Your task to perform on an android device: Do I have any events tomorrow? Image 0: 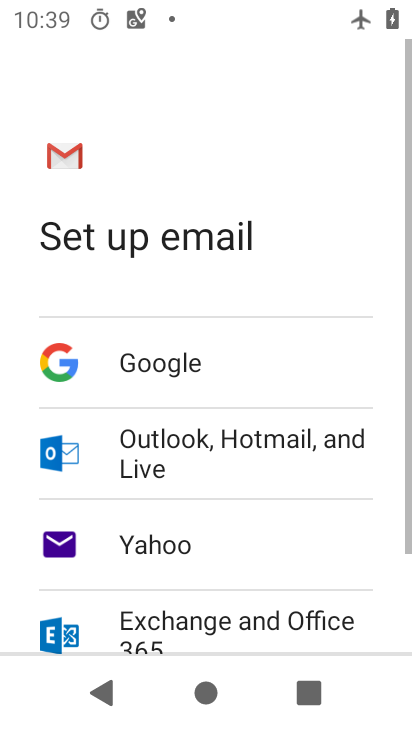
Step 0: press home button
Your task to perform on an android device: Do I have any events tomorrow? Image 1: 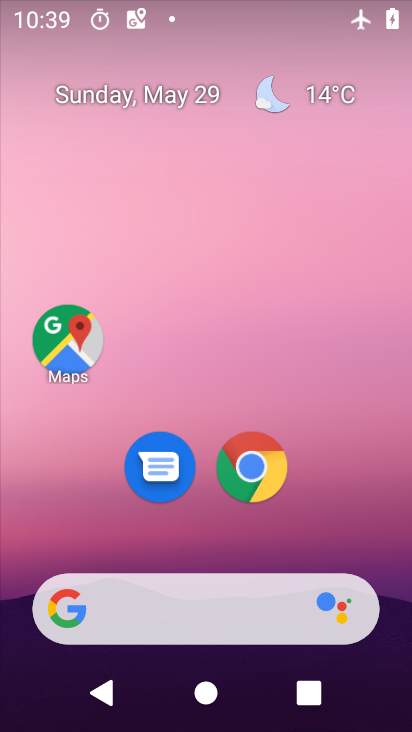
Step 1: drag from (220, 560) to (211, 232)
Your task to perform on an android device: Do I have any events tomorrow? Image 2: 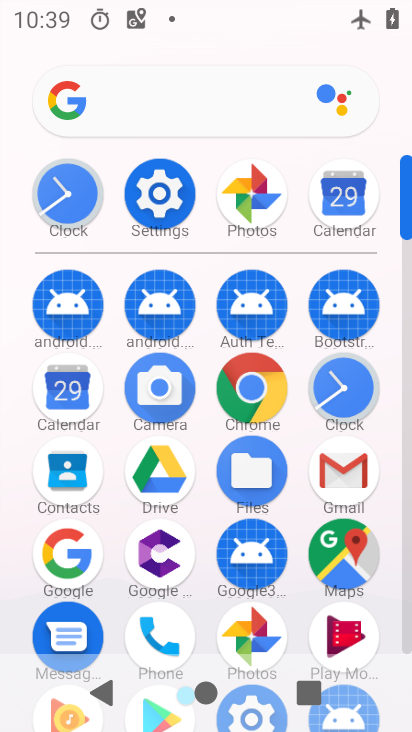
Step 2: click (333, 202)
Your task to perform on an android device: Do I have any events tomorrow? Image 3: 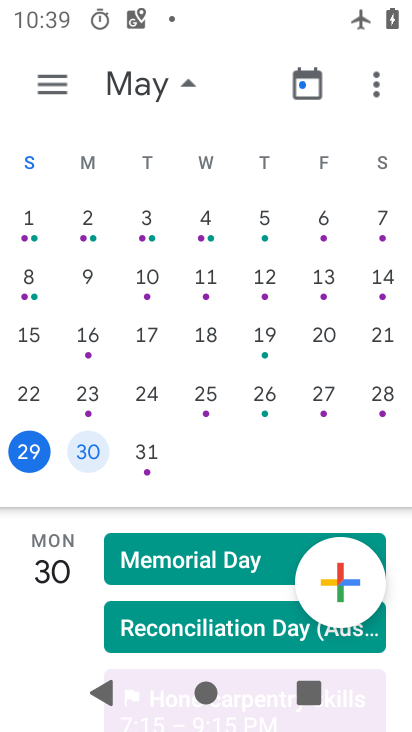
Step 3: click (78, 459)
Your task to perform on an android device: Do I have any events tomorrow? Image 4: 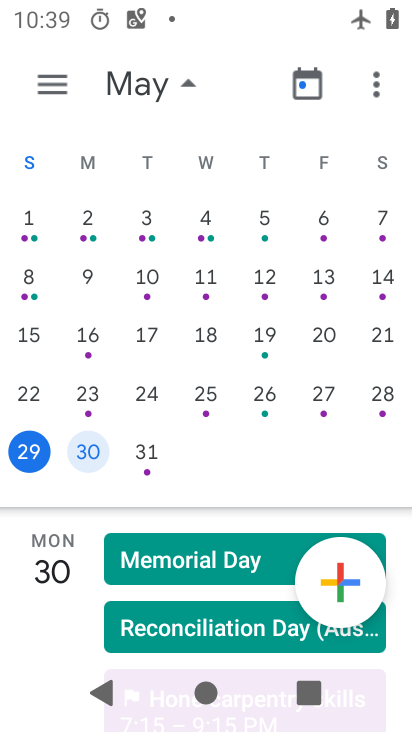
Step 4: task complete